Your task to perform on an android device: turn off improve location accuracy Image 0: 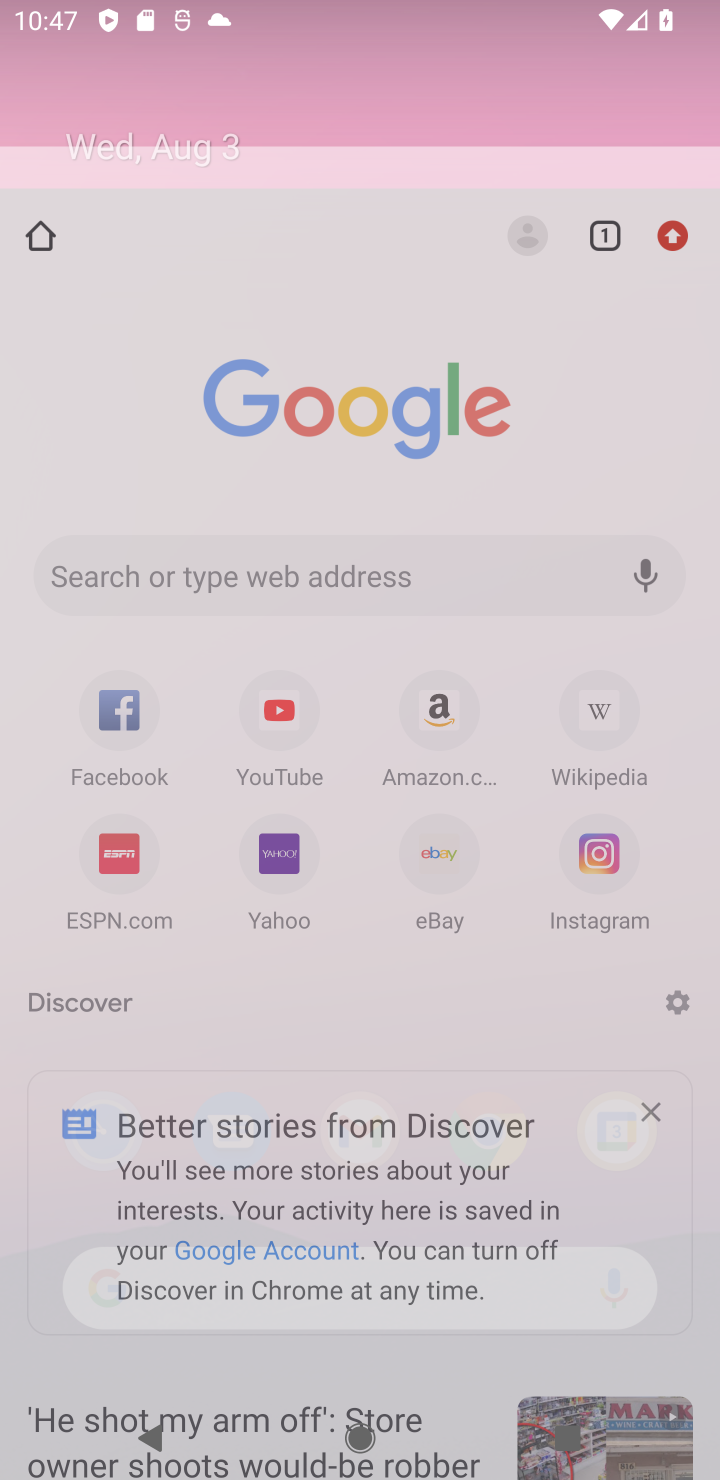
Step 0: press home button
Your task to perform on an android device: turn off improve location accuracy Image 1: 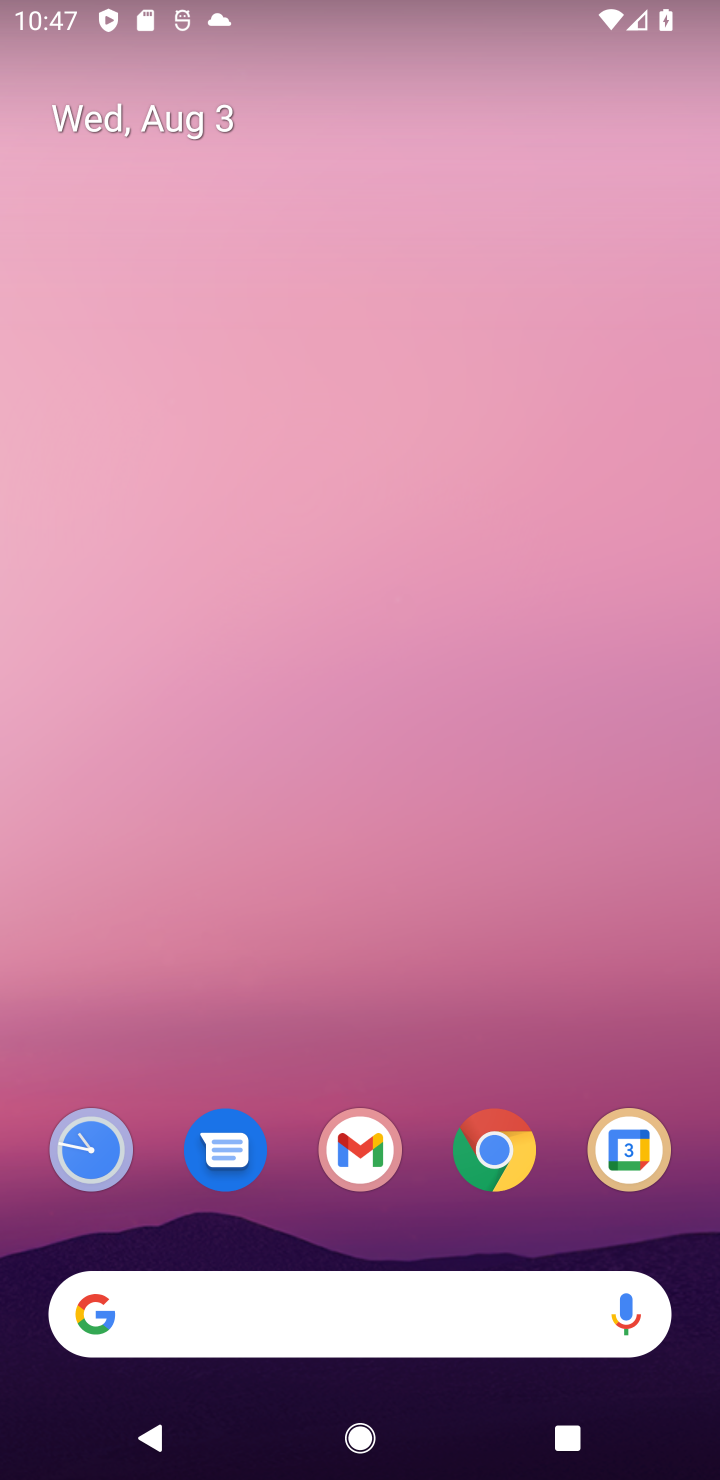
Step 1: drag from (572, 1064) to (598, 295)
Your task to perform on an android device: turn off improve location accuracy Image 2: 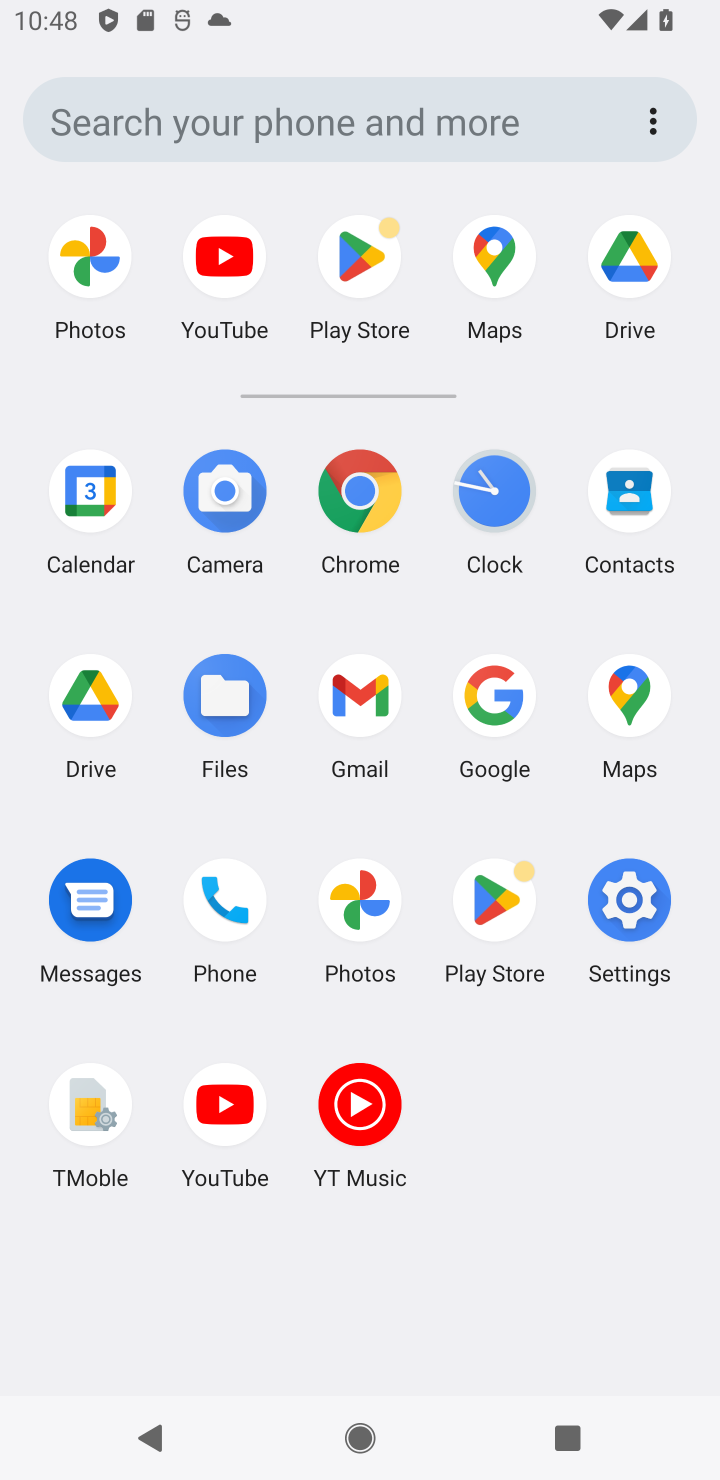
Step 2: click (637, 902)
Your task to perform on an android device: turn off improve location accuracy Image 3: 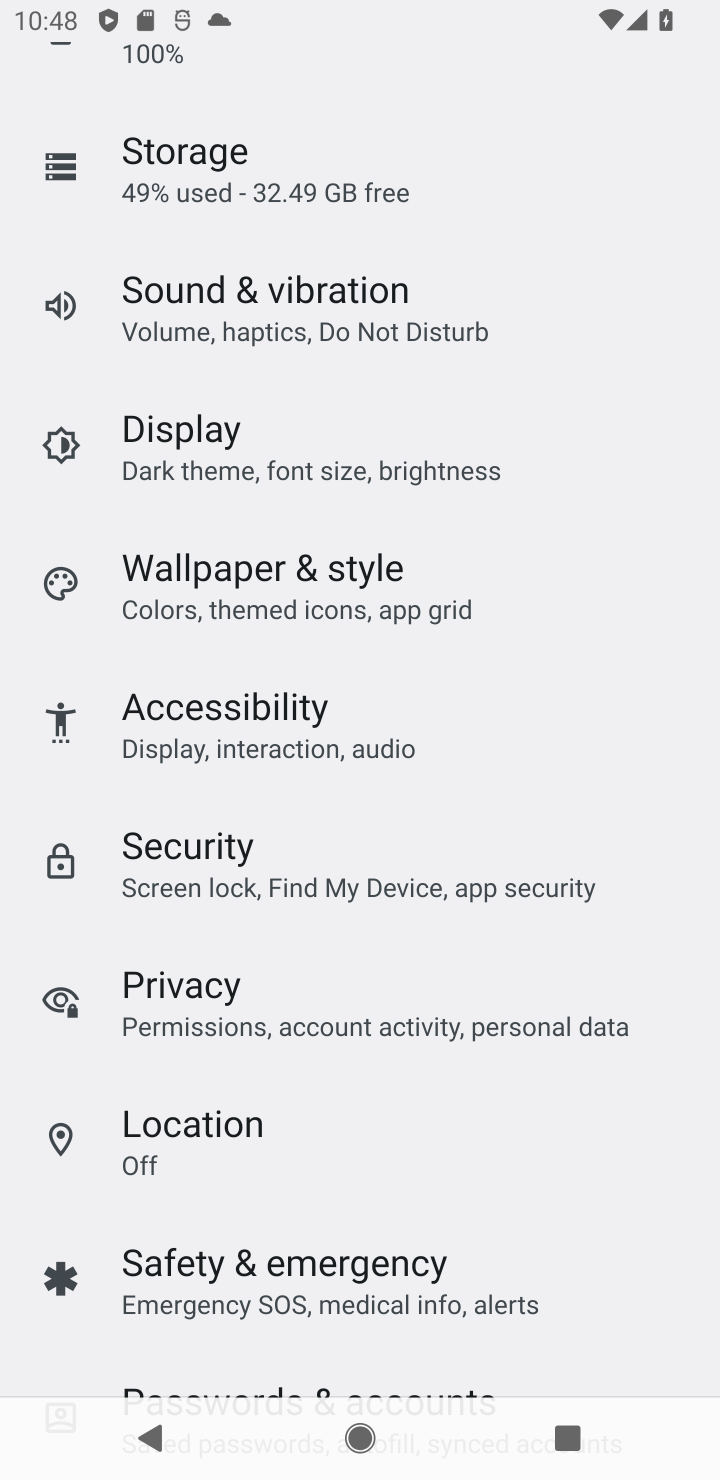
Step 3: drag from (583, 1175) to (623, 891)
Your task to perform on an android device: turn off improve location accuracy Image 4: 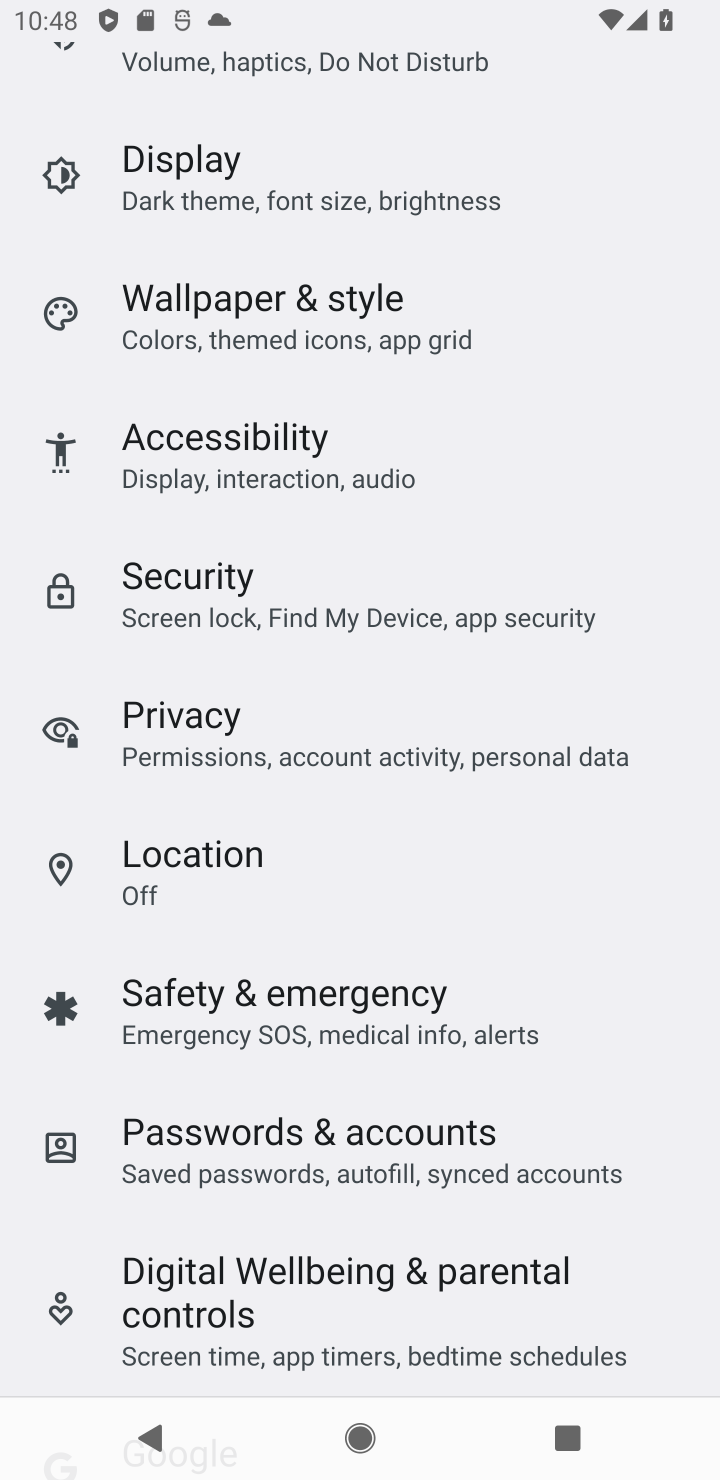
Step 4: drag from (625, 1277) to (633, 919)
Your task to perform on an android device: turn off improve location accuracy Image 5: 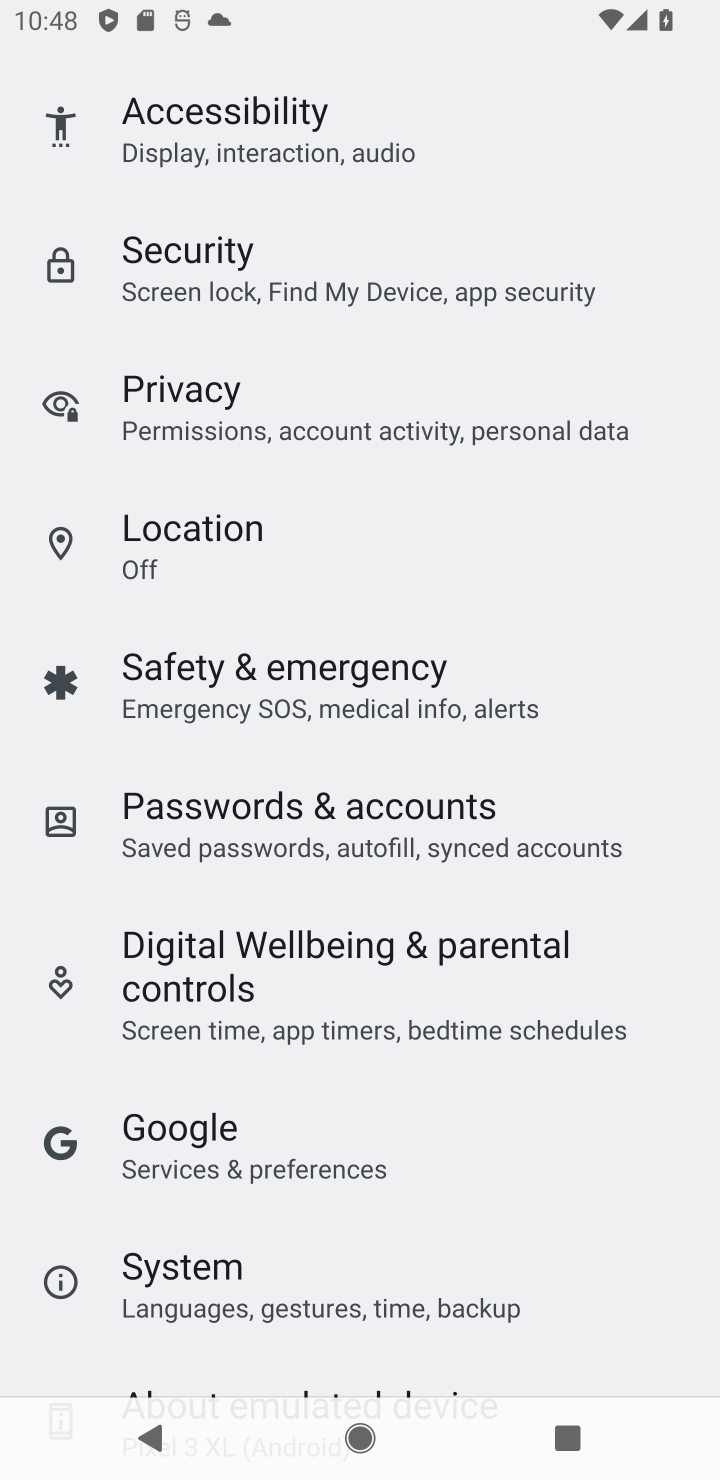
Step 5: drag from (579, 1254) to (594, 1061)
Your task to perform on an android device: turn off improve location accuracy Image 6: 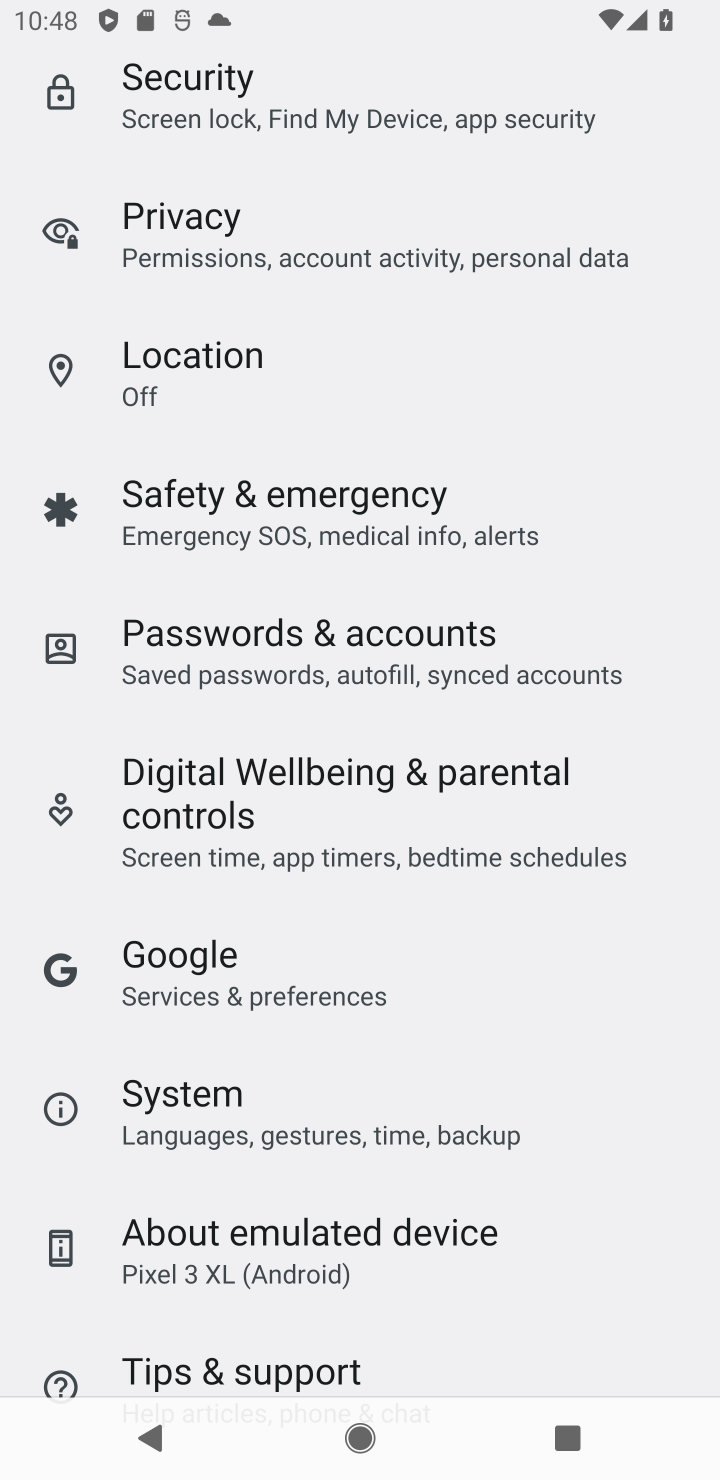
Step 6: drag from (620, 1318) to (629, 1021)
Your task to perform on an android device: turn off improve location accuracy Image 7: 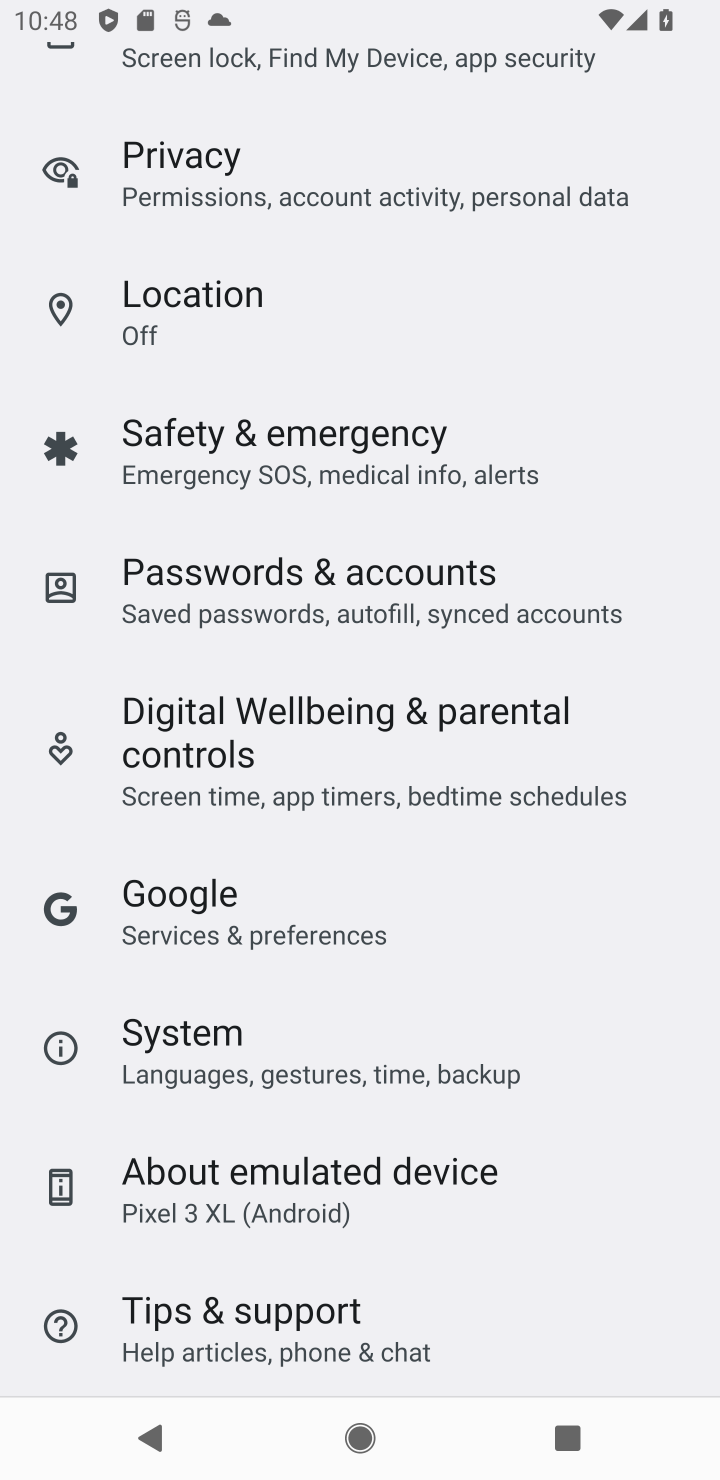
Step 7: drag from (571, 1210) to (582, 861)
Your task to perform on an android device: turn off improve location accuracy Image 8: 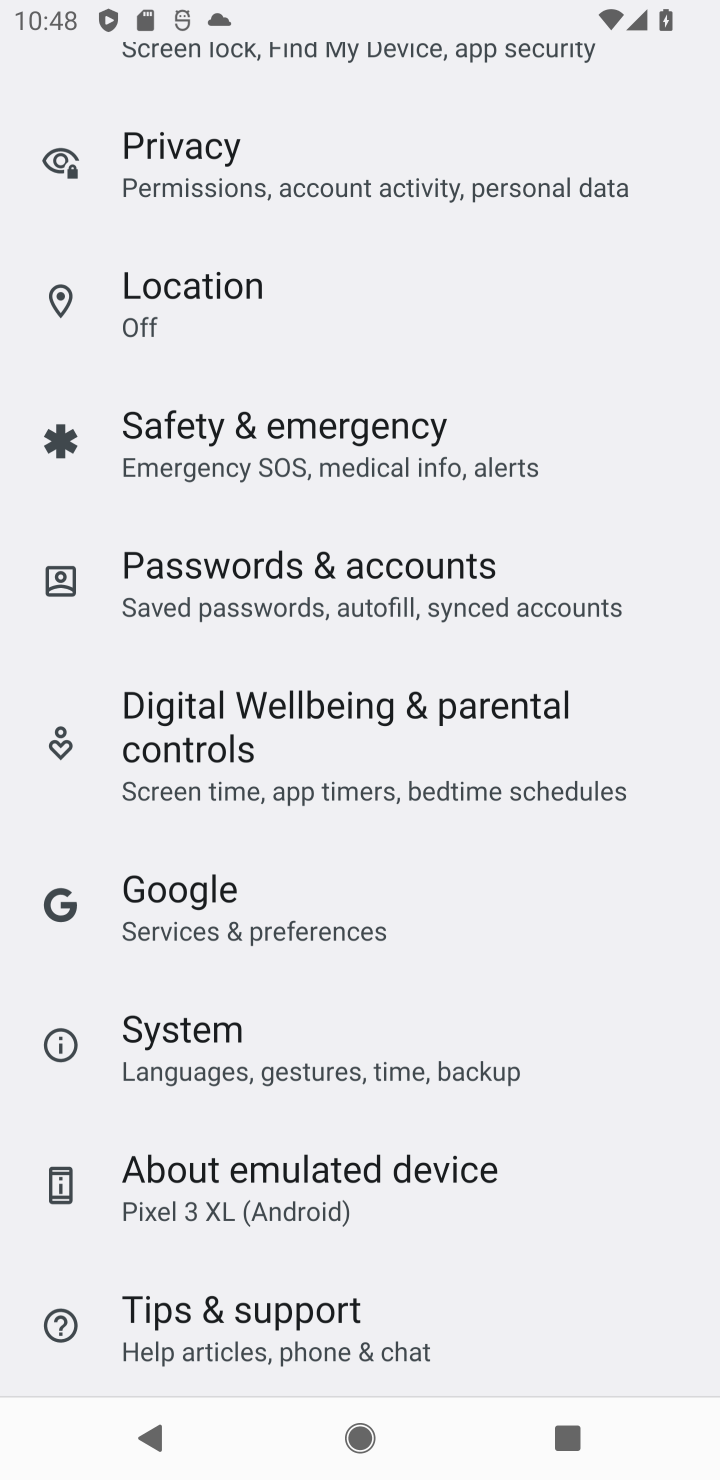
Step 8: drag from (589, 861) to (615, 1200)
Your task to perform on an android device: turn off improve location accuracy Image 9: 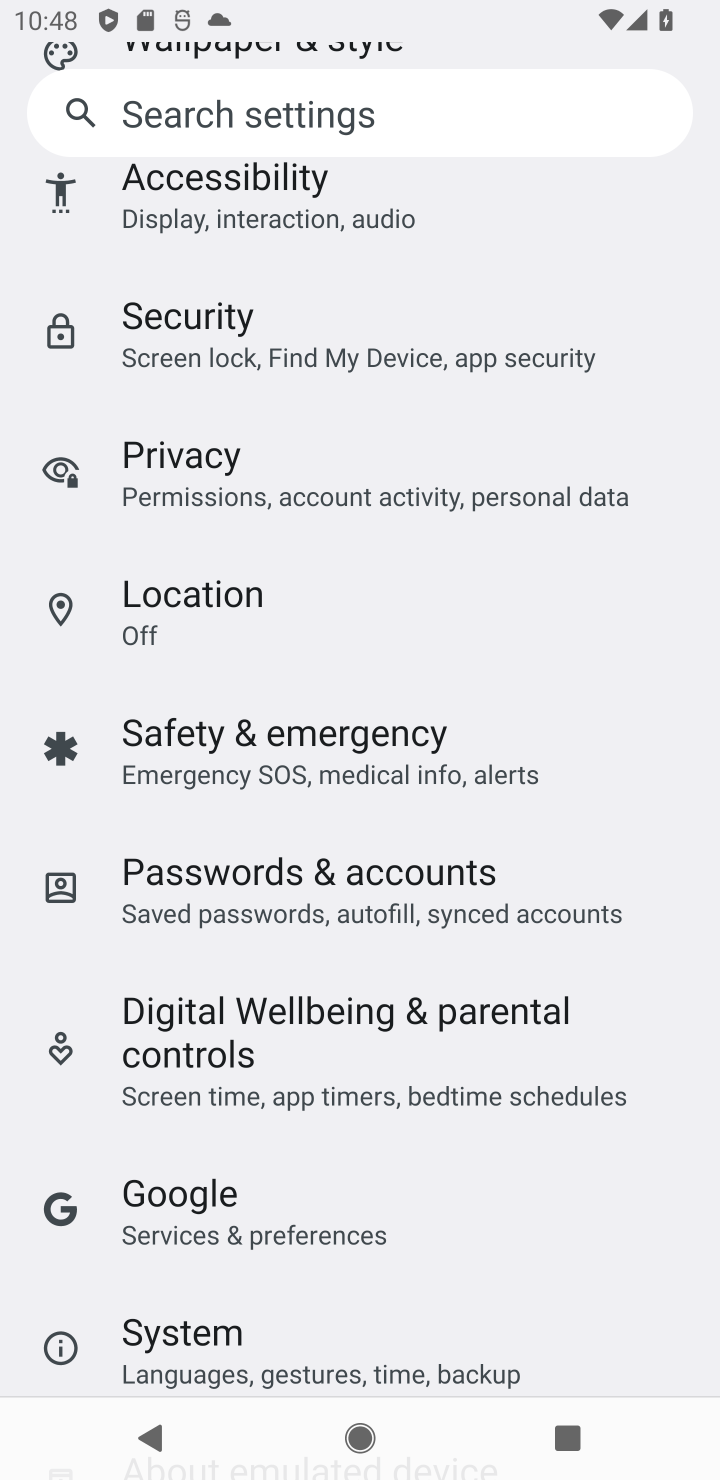
Step 9: drag from (613, 653) to (621, 959)
Your task to perform on an android device: turn off improve location accuracy Image 10: 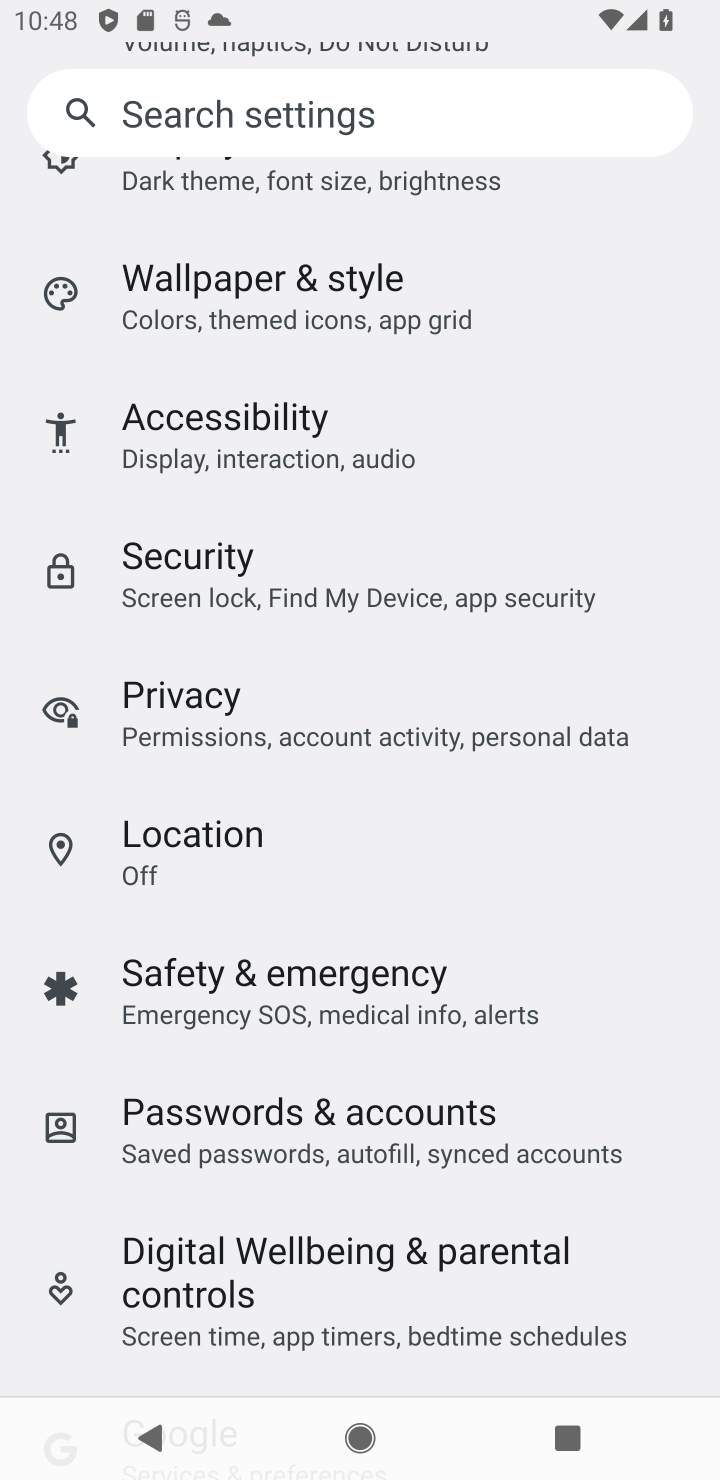
Step 10: drag from (621, 768) to (621, 1068)
Your task to perform on an android device: turn off improve location accuracy Image 11: 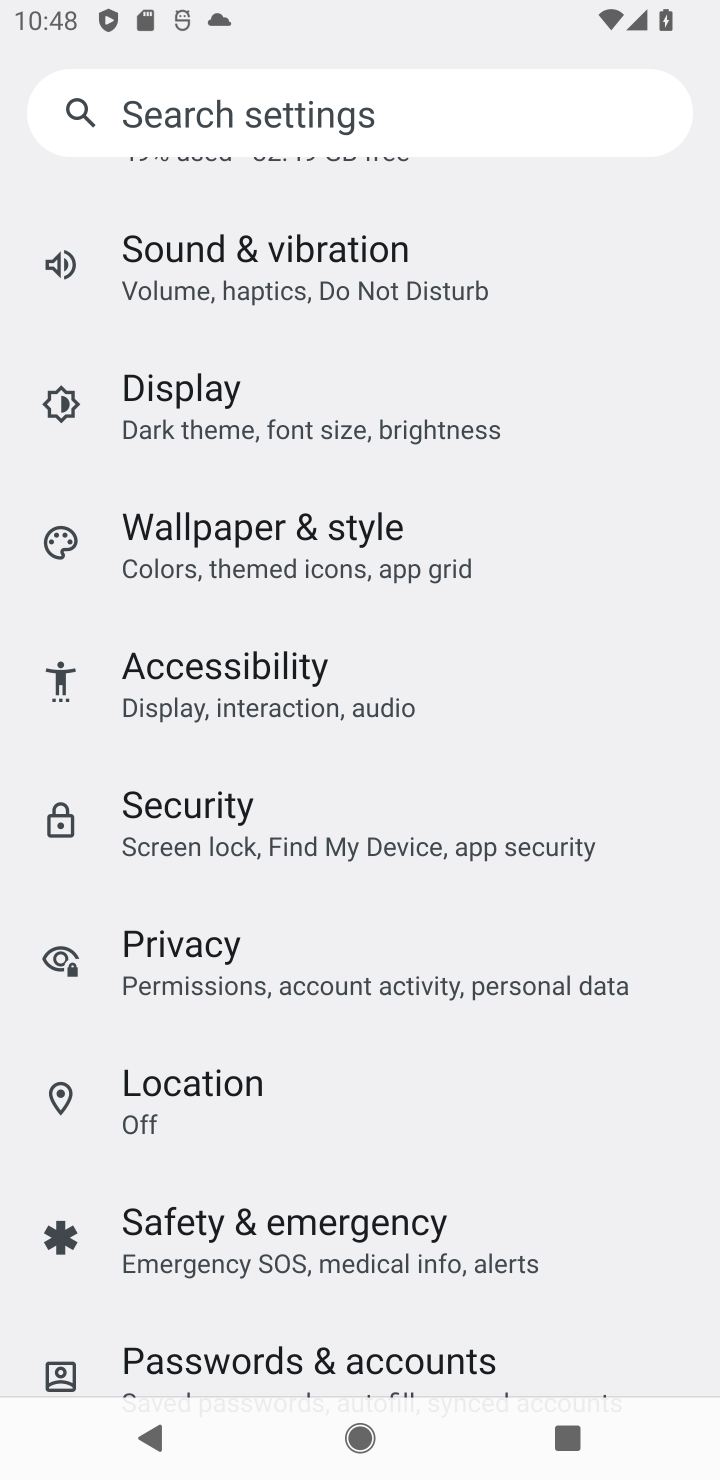
Step 11: click (277, 1102)
Your task to perform on an android device: turn off improve location accuracy Image 12: 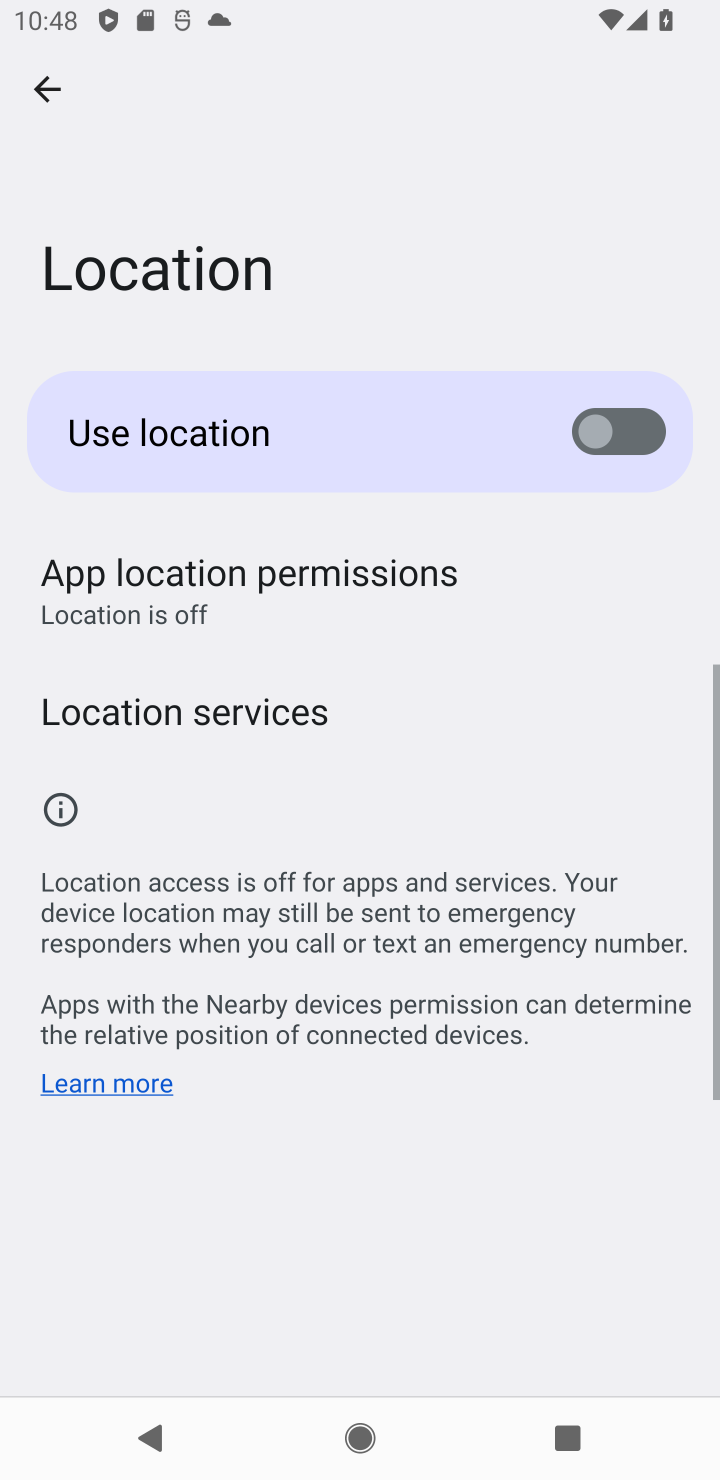
Step 12: drag from (575, 1176) to (560, 778)
Your task to perform on an android device: turn off improve location accuracy Image 13: 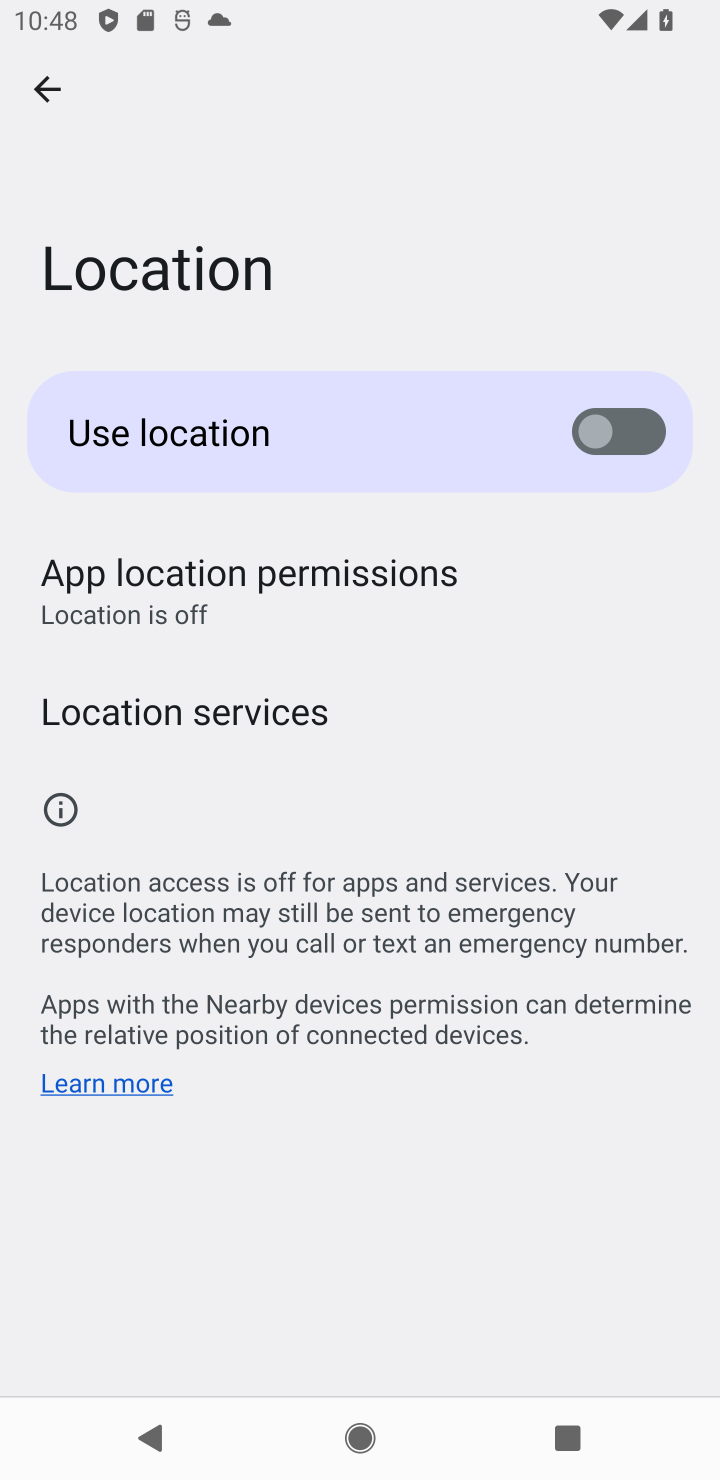
Step 13: click (338, 720)
Your task to perform on an android device: turn off improve location accuracy Image 14: 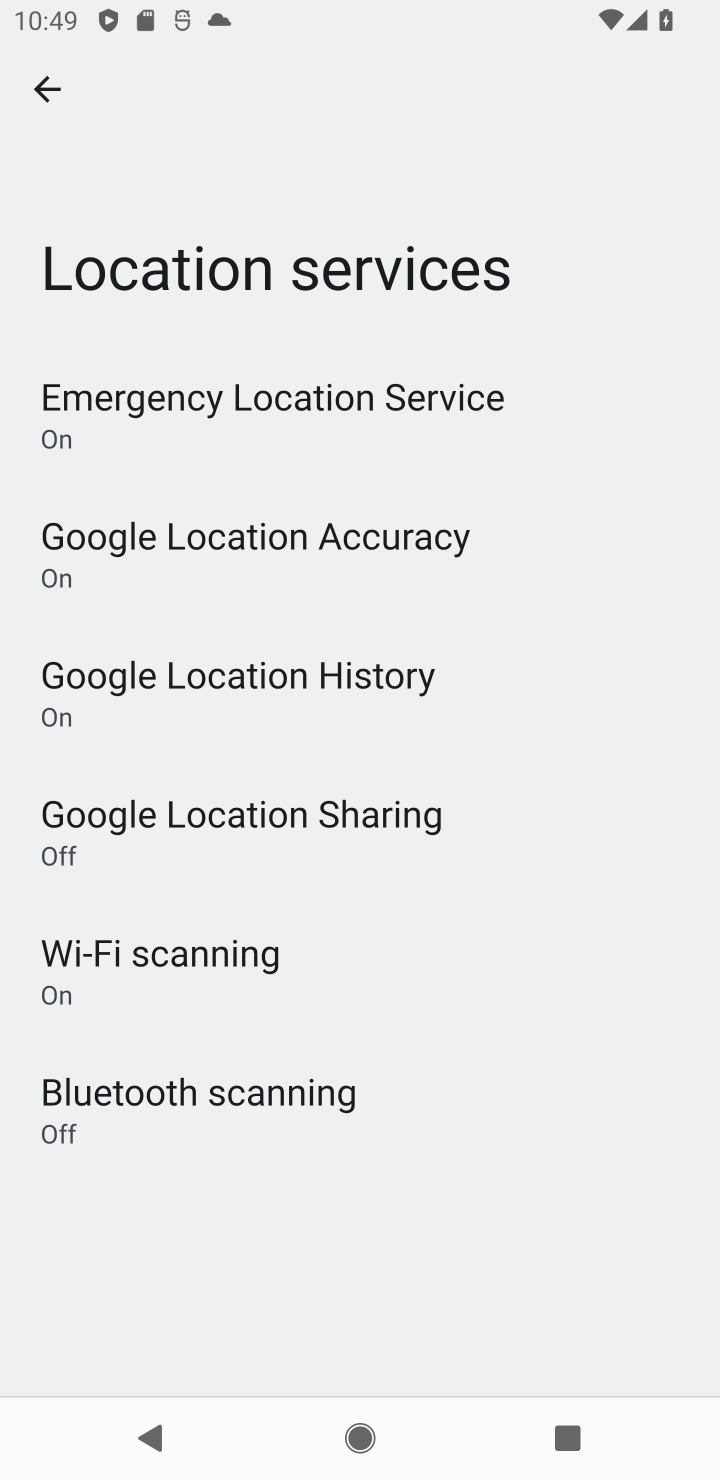
Step 14: click (335, 547)
Your task to perform on an android device: turn off improve location accuracy Image 15: 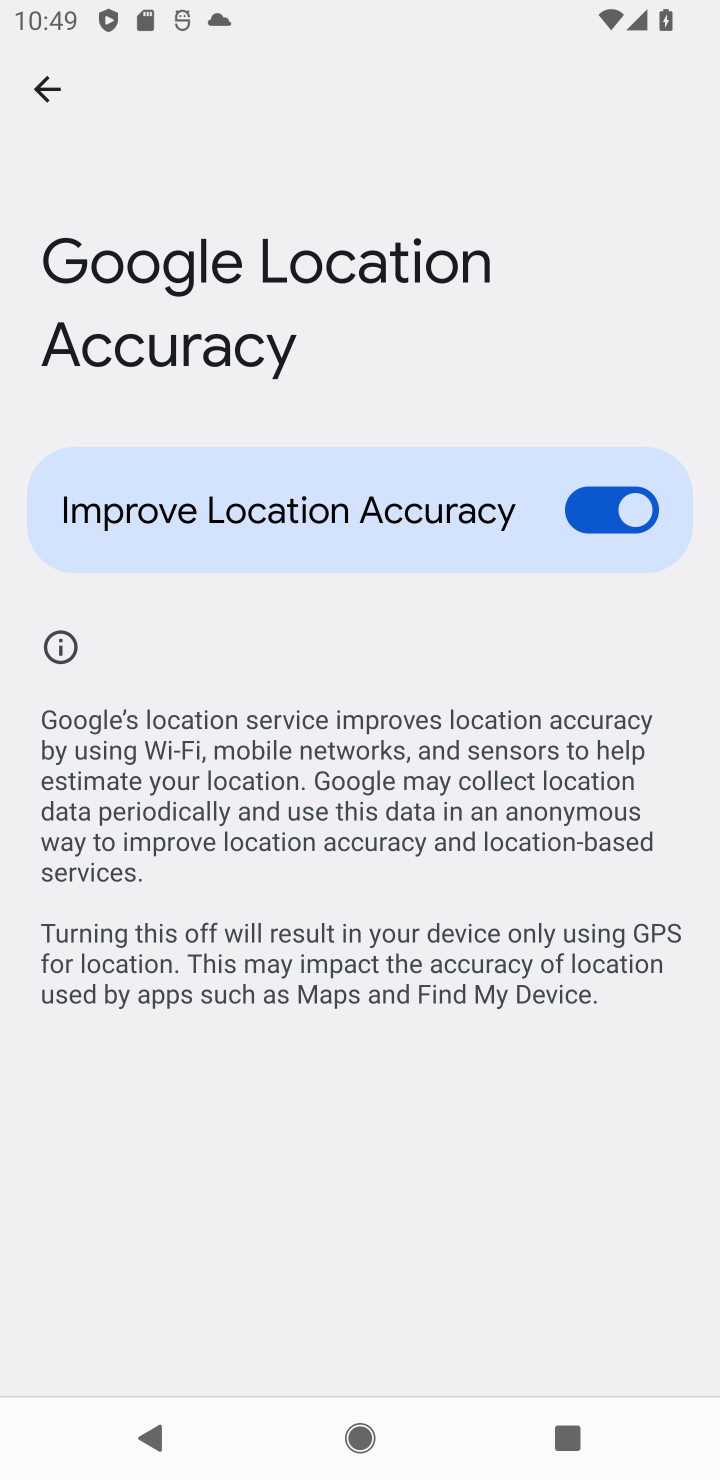
Step 15: click (594, 499)
Your task to perform on an android device: turn off improve location accuracy Image 16: 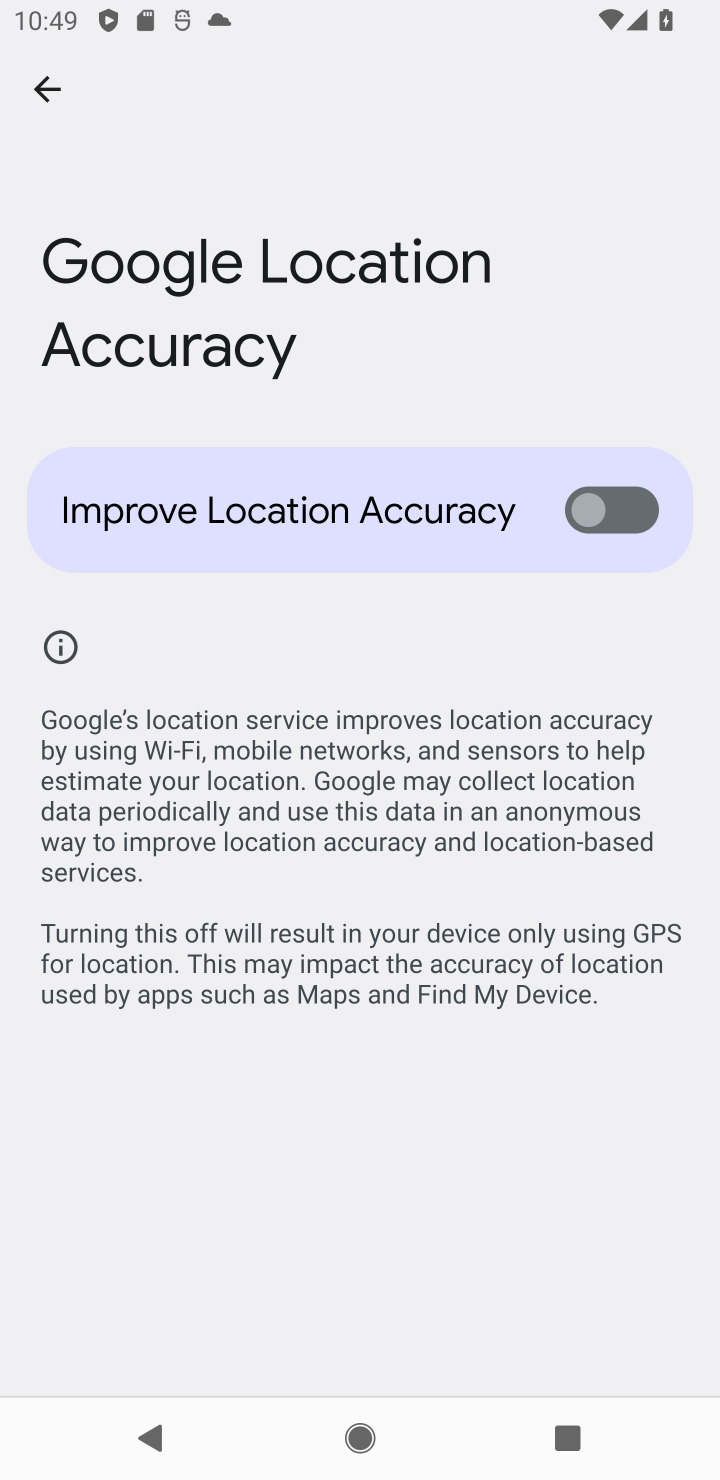
Step 16: task complete